Your task to perform on an android device: Go to display settings Image 0: 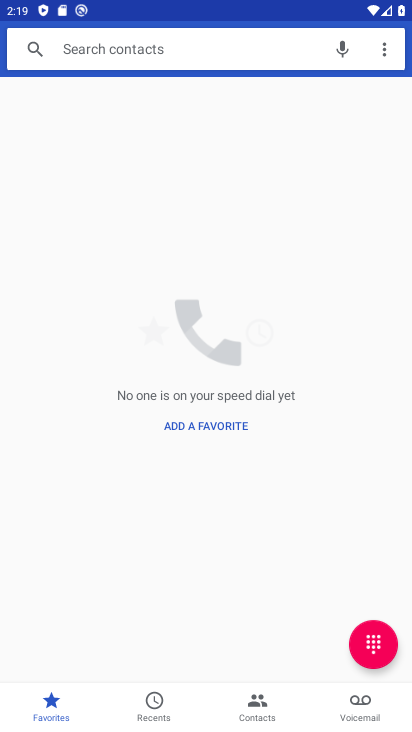
Step 0: press home button
Your task to perform on an android device: Go to display settings Image 1: 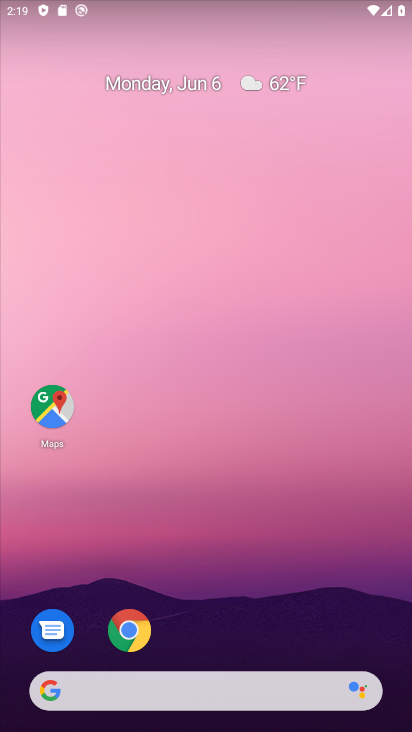
Step 1: drag from (278, 606) to (219, 39)
Your task to perform on an android device: Go to display settings Image 2: 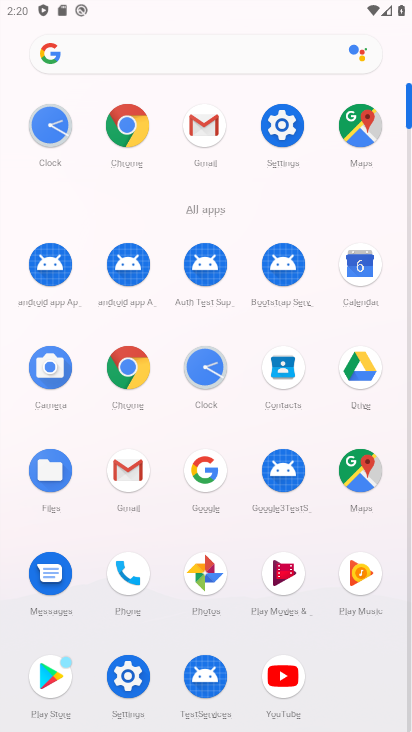
Step 2: click (126, 681)
Your task to perform on an android device: Go to display settings Image 3: 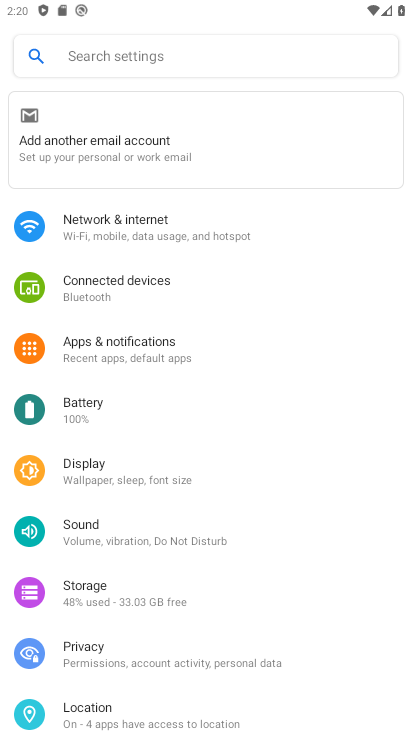
Step 3: drag from (127, 372) to (139, 567)
Your task to perform on an android device: Go to display settings Image 4: 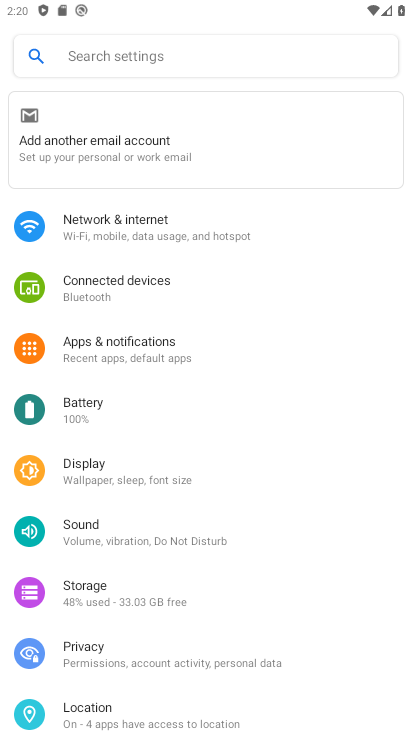
Step 4: click (121, 476)
Your task to perform on an android device: Go to display settings Image 5: 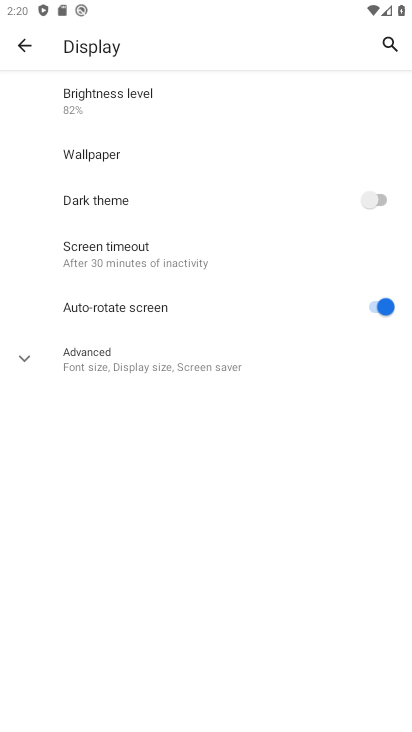
Step 5: task complete